Your task to perform on an android device: search for starred emails in the gmail app Image 0: 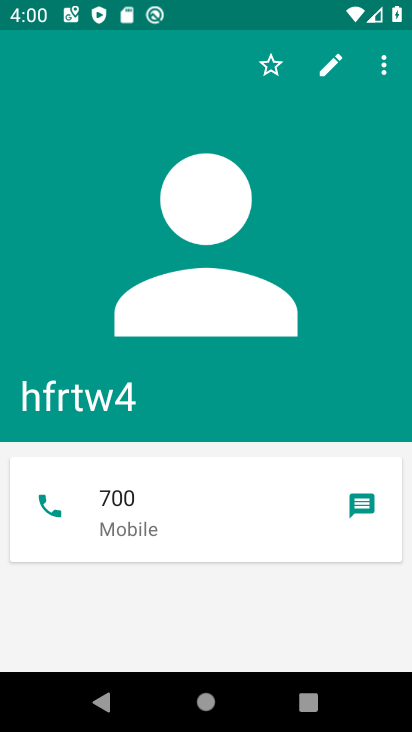
Step 0: press home button
Your task to perform on an android device: search for starred emails in the gmail app Image 1: 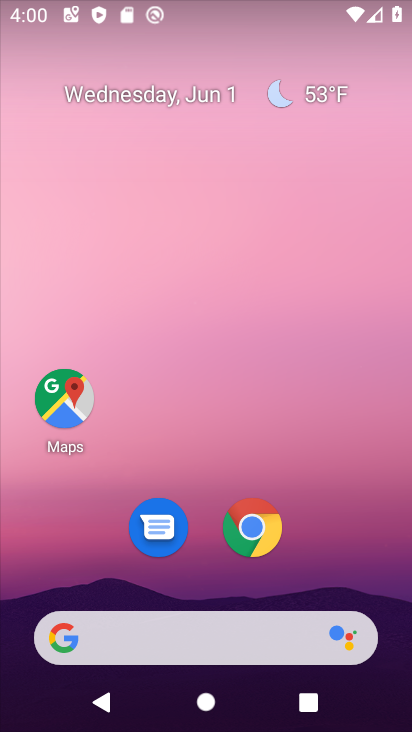
Step 1: drag from (338, 525) to (349, 77)
Your task to perform on an android device: search for starred emails in the gmail app Image 2: 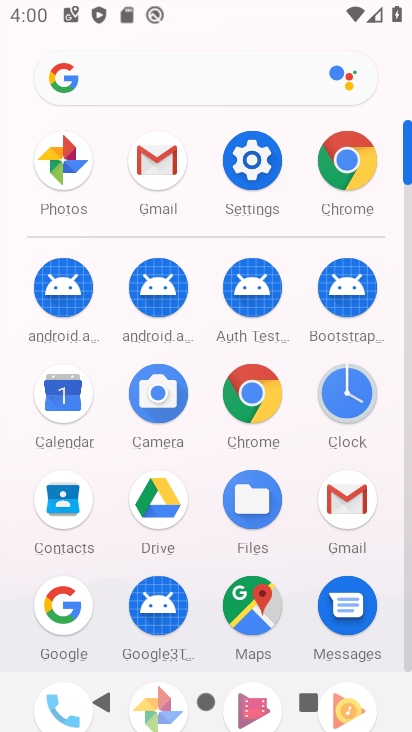
Step 2: click (338, 493)
Your task to perform on an android device: search for starred emails in the gmail app Image 3: 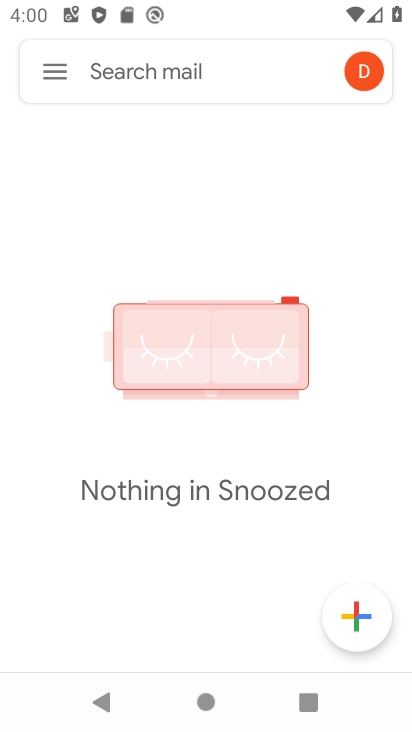
Step 3: click (43, 68)
Your task to perform on an android device: search for starred emails in the gmail app Image 4: 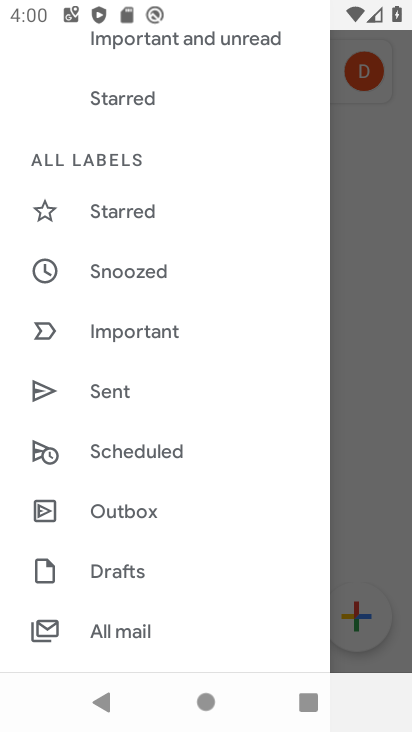
Step 4: click (135, 215)
Your task to perform on an android device: search for starred emails in the gmail app Image 5: 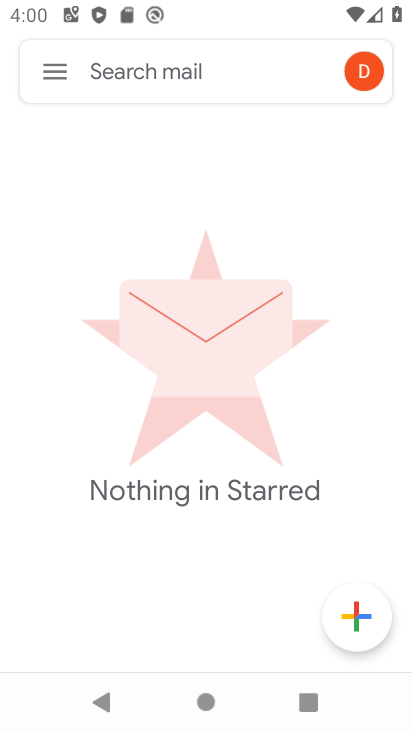
Step 5: task complete